Your task to perform on an android device: Search for sushi restaurants on Maps Image 0: 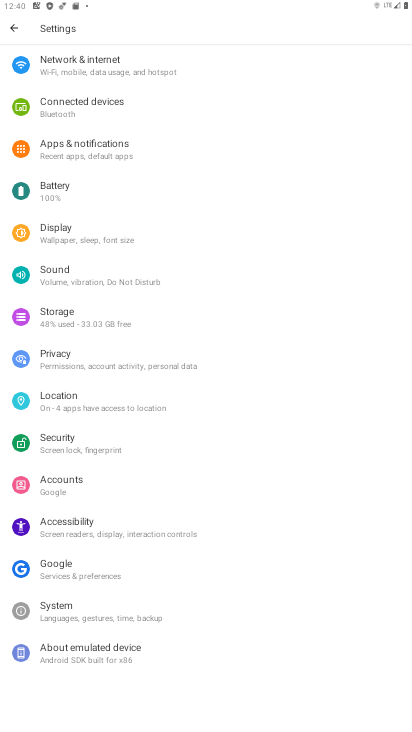
Step 0: press home button
Your task to perform on an android device: Search for sushi restaurants on Maps Image 1: 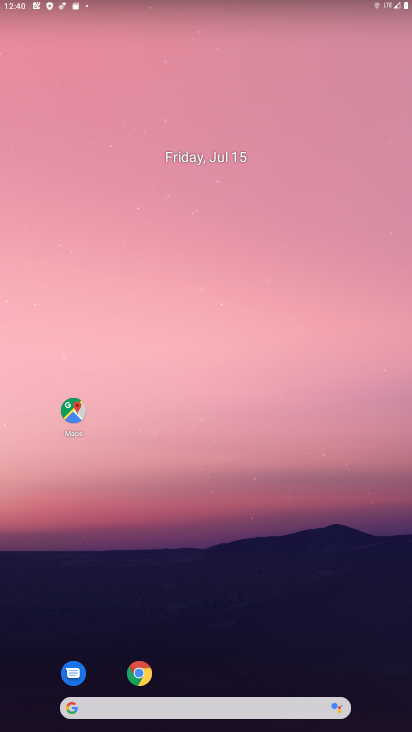
Step 1: click (75, 403)
Your task to perform on an android device: Search for sushi restaurants on Maps Image 2: 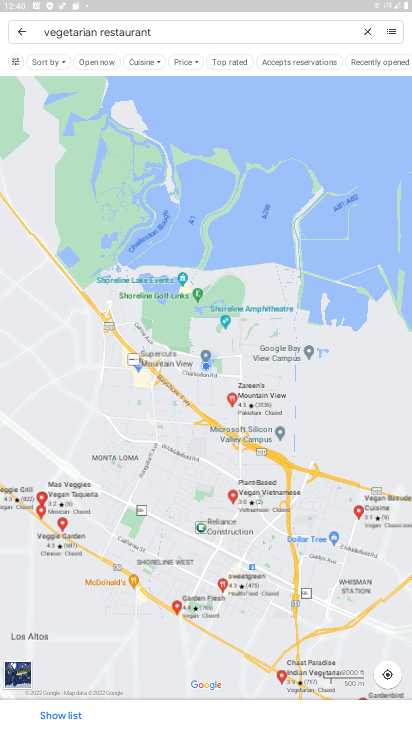
Step 2: click (221, 31)
Your task to perform on an android device: Search for sushi restaurants on Maps Image 3: 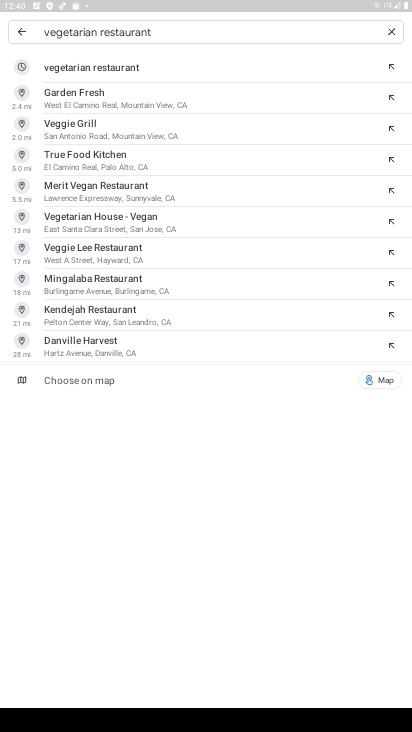
Step 3: click (391, 30)
Your task to perform on an android device: Search for sushi restaurants on Maps Image 4: 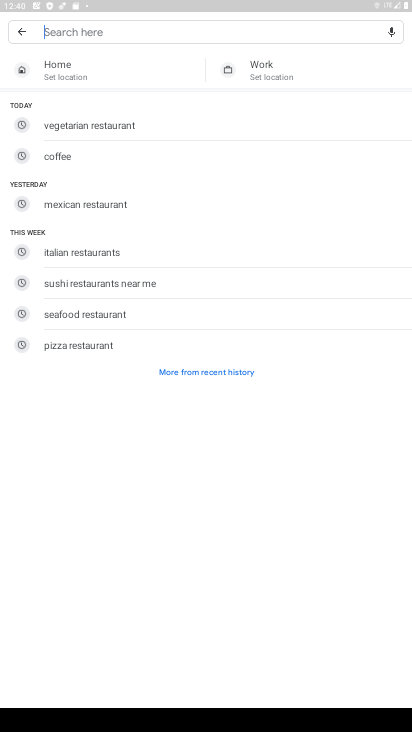
Step 4: type "sushi restaurants"
Your task to perform on an android device: Search for sushi restaurants on Maps Image 5: 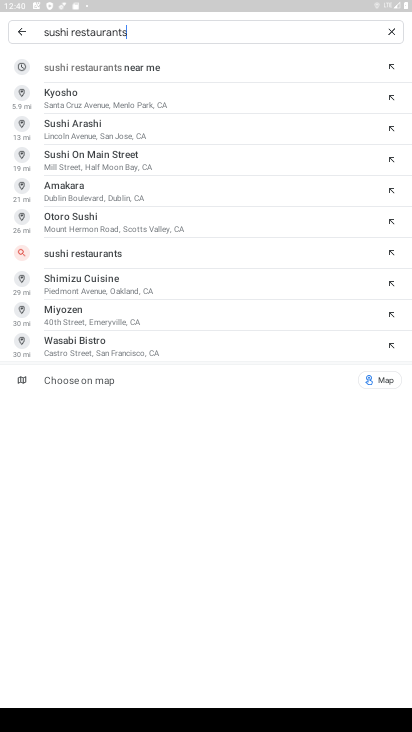
Step 5: click (93, 250)
Your task to perform on an android device: Search for sushi restaurants on Maps Image 6: 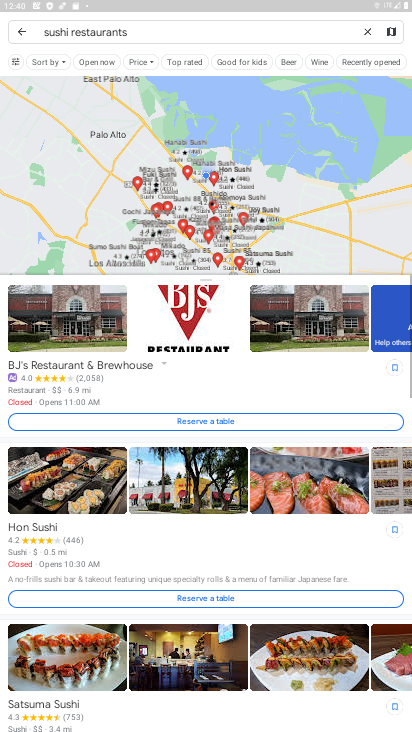
Step 6: task complete